Your task to perform on an android device: Open Android settings Image 0: 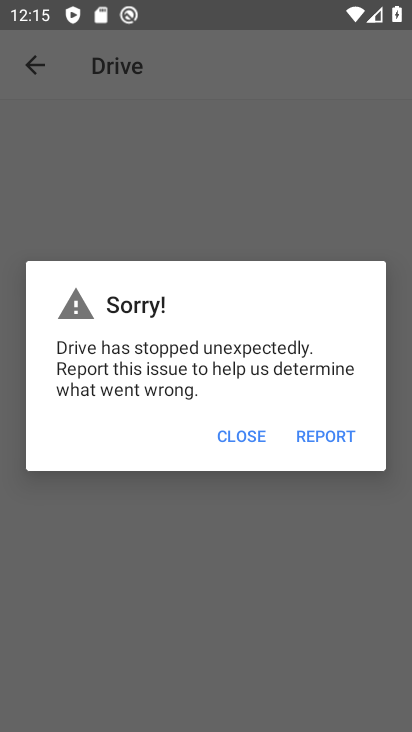
Step 0: press home button
Your task to perform on an android device: Open Android settings Image 1: 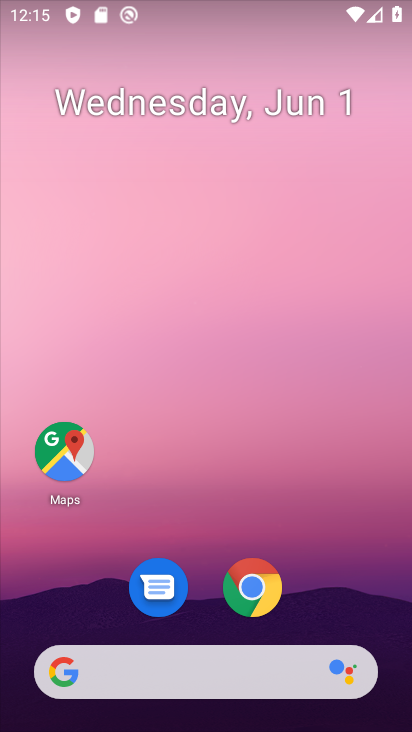
Step 1: drag from (329, 511) to (198, 72)
Your task to perform on an android device: Open Android settings Image 2: 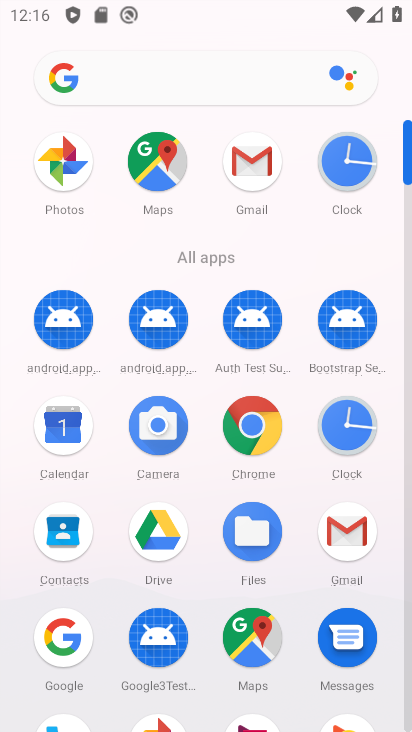
Step 2: drag from (196, 476) to (160, 127)
Your task to perform on an android device: Open Android settings Image 3: 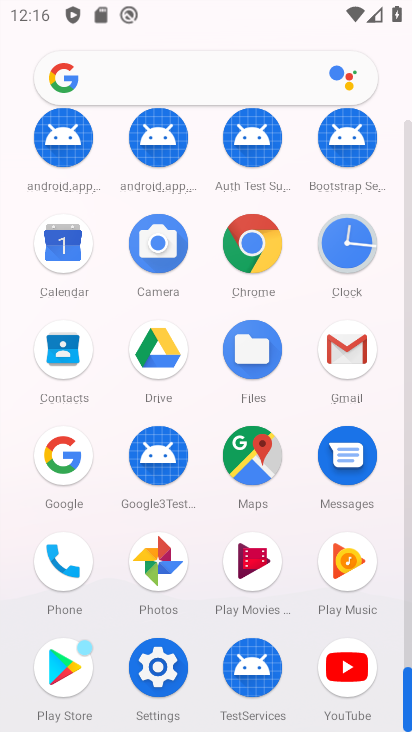
Step 3: click (153, 659)
Your task to perform on an android device: Open Android settings Image 4: 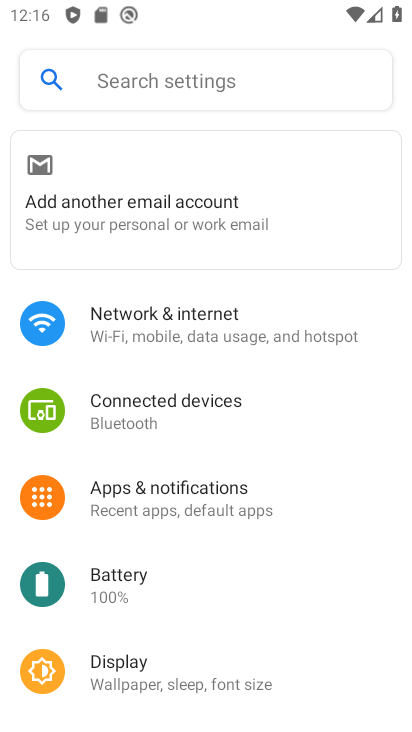
Step 4: task complete